Your task to perform on an android device: check out phone information Image 0: 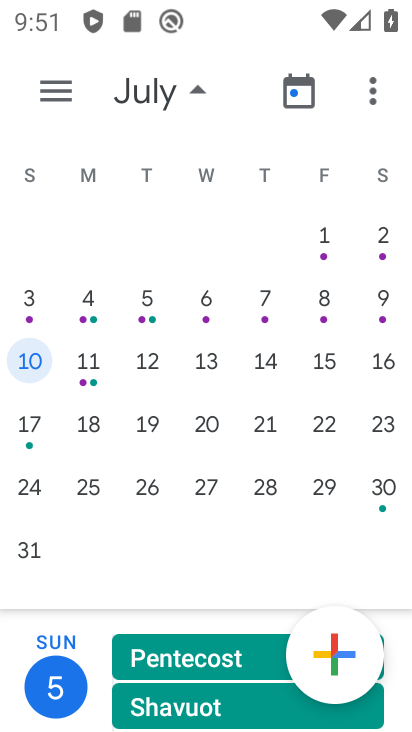
Step 0: drag from (281, 9) to (295, 699)
Your task to perform on an android device: check out phone information Image 1: 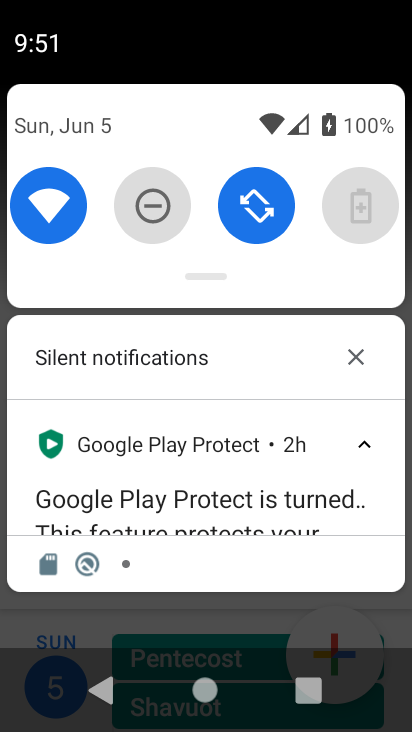
Step 1: drag from (301, 249) to (274, 715)
Your task to perform on an android device: check out phone information Image 2: 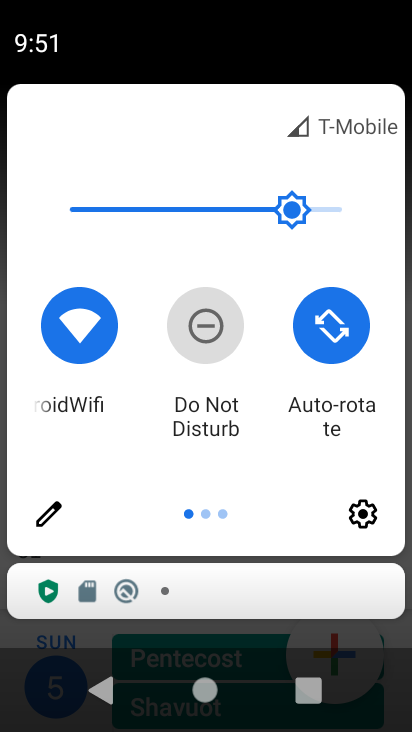
Step 2: press home button
Your task to perform on an android device: check out phone information Image 3: 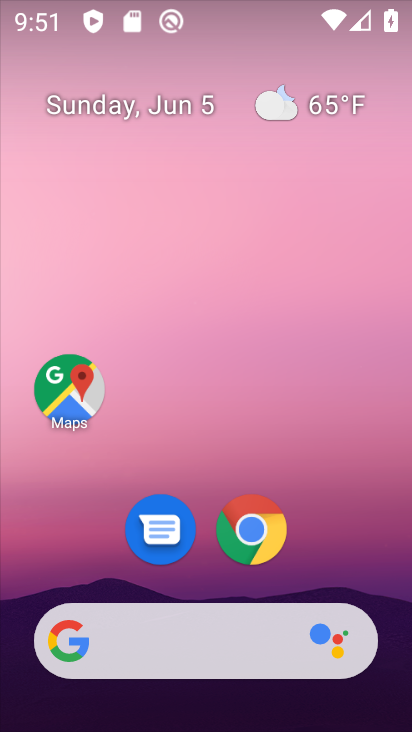
Step 3: drag from (272, 701) to (154, 11)
Your task to perform on an android device: check out phone information Image 4: 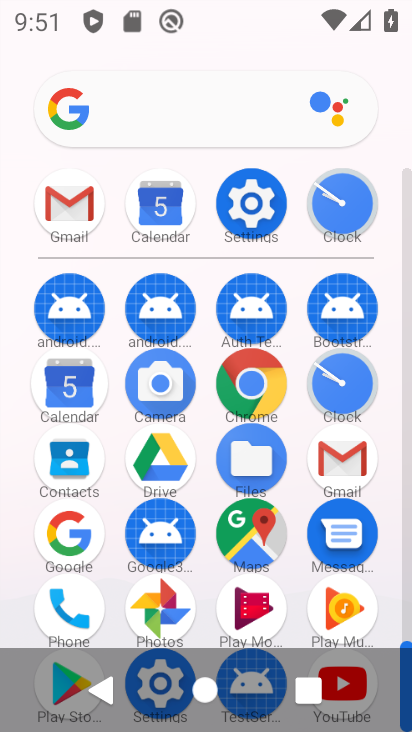
Step 4: click (234, 191)
Your task to perform on an android device: check out phone information Image 5: 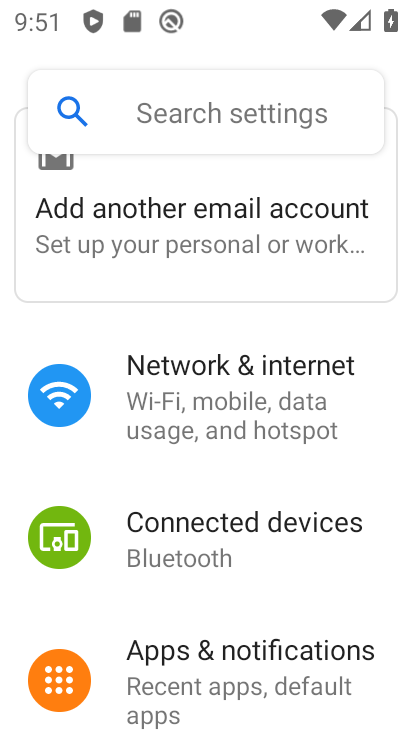
Step 5: drag from (243, 660) to (135, 7)
Your task to perform on an android device: check out phone information Image 6: 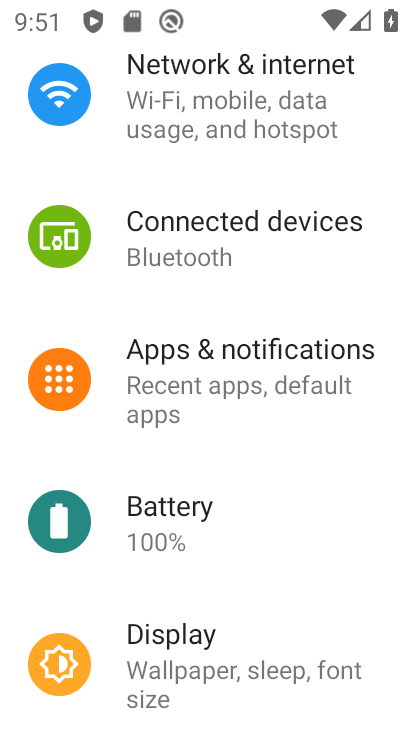
Step 6: drag from (256, 507) to (251, 178)
Your task to perform on an android device: check out phone information Image 7: 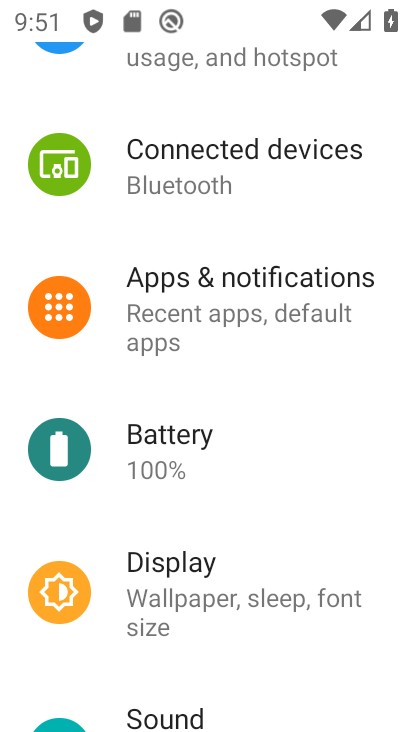
Step 7: drag from (313, 718) to (196, 20)
Your task to perform on an android device: check out phone information Image 8: 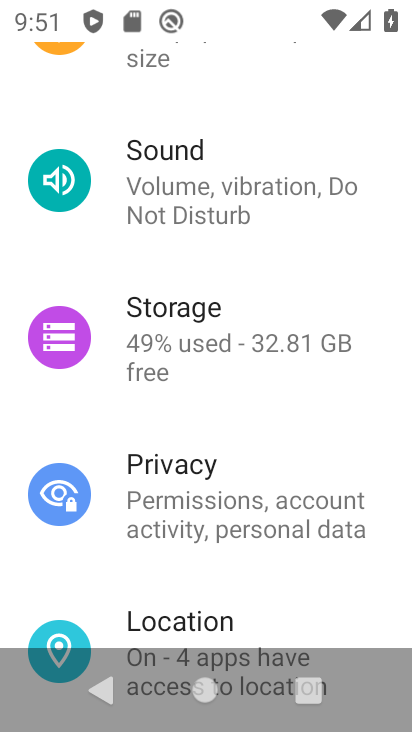
Step 8: drag from (313, 608) to (262, 13)
Your task to perform on an android device: check out phone information Image 9: 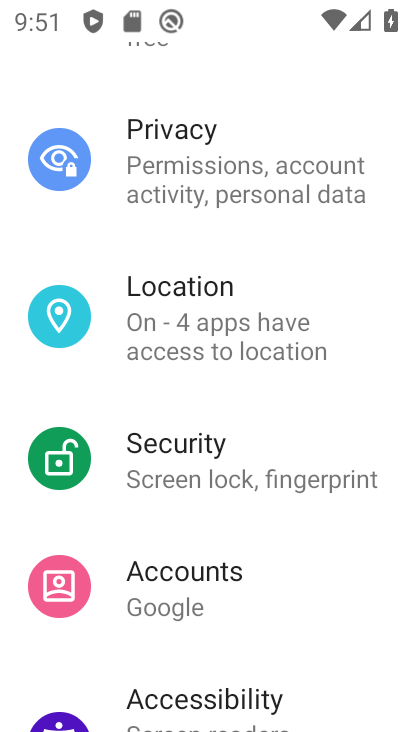
Step 9: drag from (231, 667) to (259, 28)
Your task to perform on an android device: check out phone information Image 10: 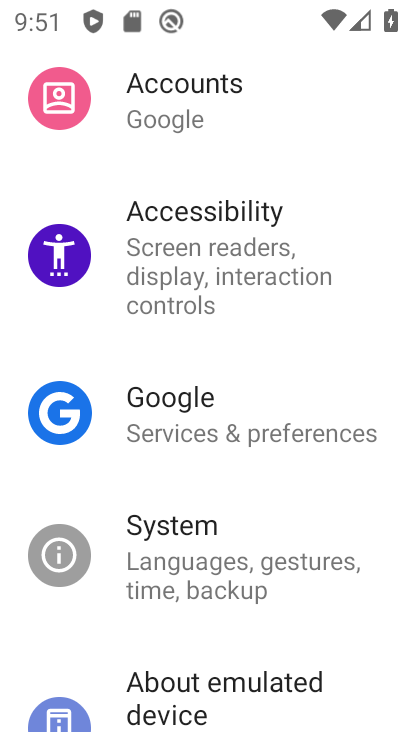
Step 10: drag from (254, 511) to (205, 29)
Your task to perform on an android device: check out phone information Image 11: 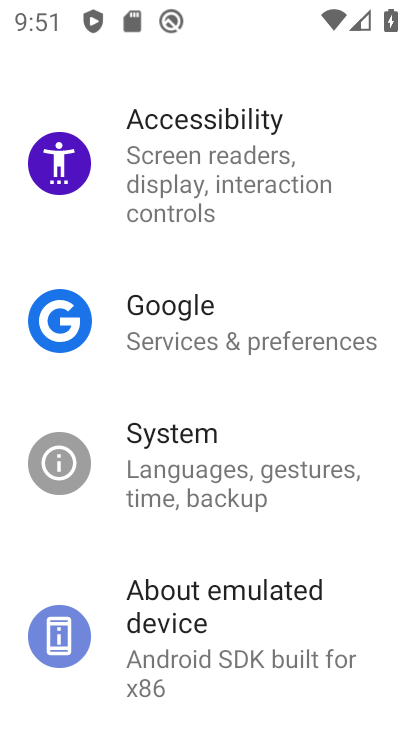
Step 11: drag from (296, 631) to (172, 4)
Your task to perform on an android device: check out phone information Image 12: 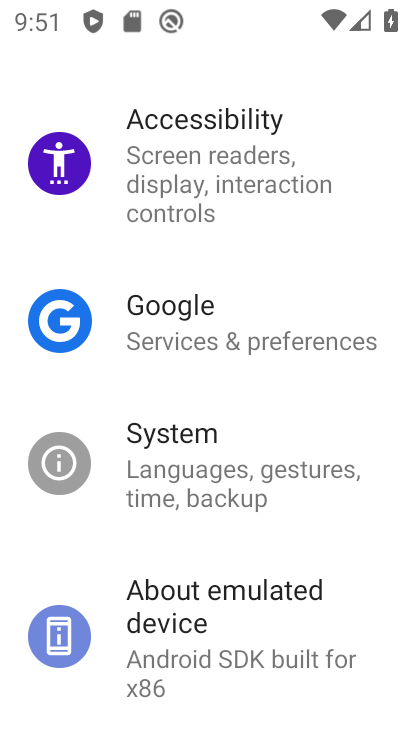
Step 12: click (278, 658)
Your task to perform on an android device: check out phone information Image 13: 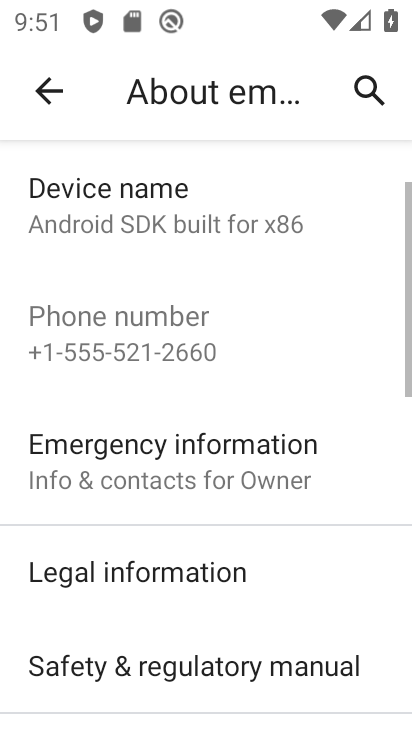
Step 13: task complete